Your task to perform on an android device: Go to CNN.com Image 0: 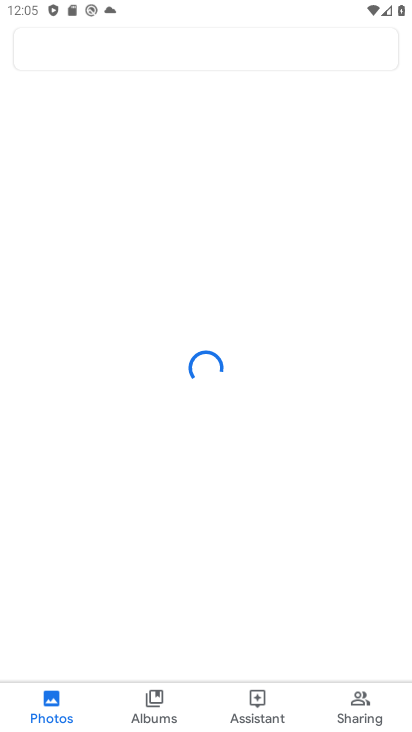
Step 0: press home button
Your task to perform on an android device: Go to CNN.com Image 1: 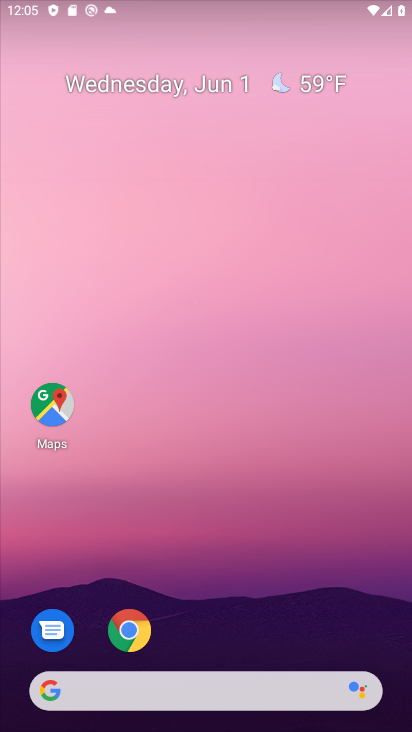
Step 1: drag from (229, 571) to (236, 228)
Your task to perform on an android device: Go to CNN.com Image 2: 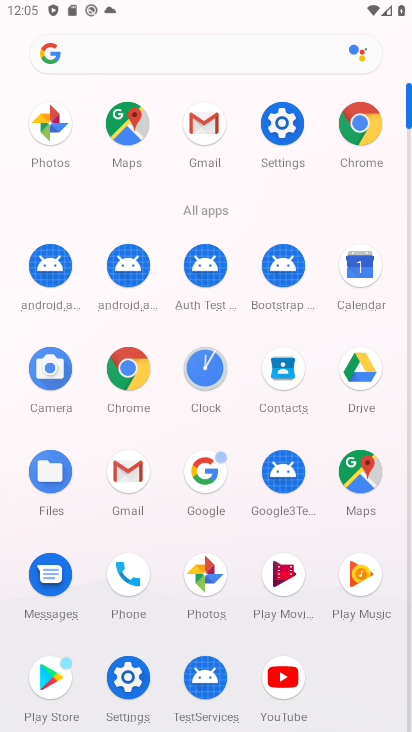
Step 2: click (138, 363)
Your task to perform on an android device: Go to CNN.com Image 3: 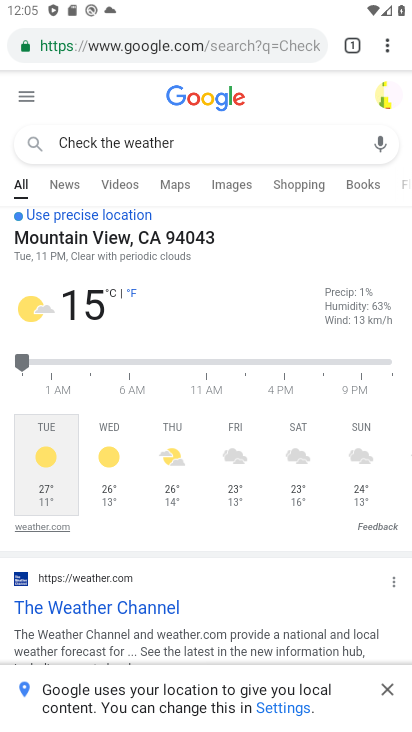
Step 3: click (394, 40)
Your task to perform on an android device: Go to CNN.com Image 4: 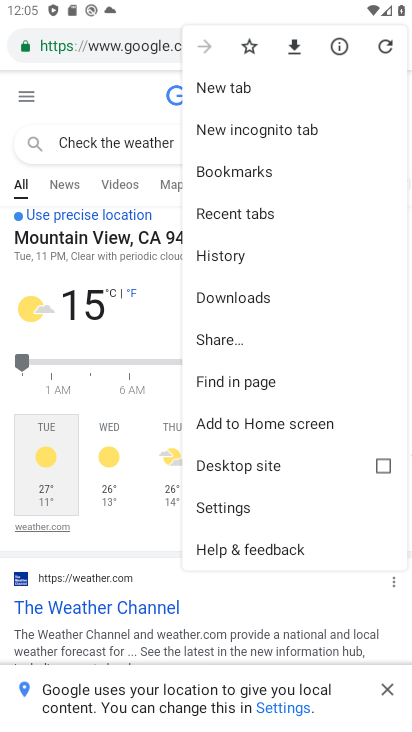
Step 4: click (222, 79)
Your task to perform on an android device: Go to CNN.com Image 5: 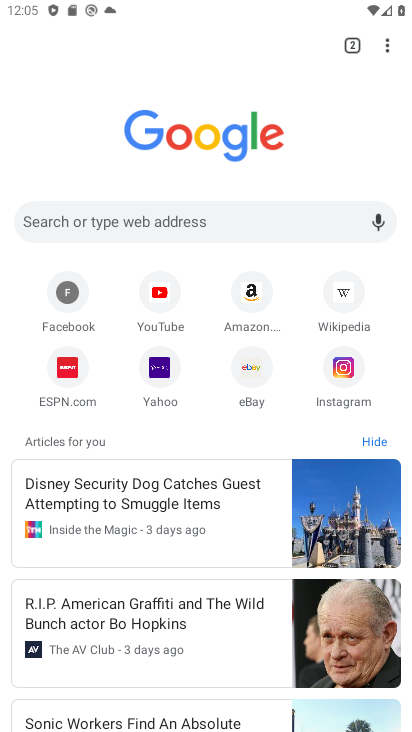
Step 5: click (254, 216)
Your task to perform on an android device: Go to CNN.com Image 6: 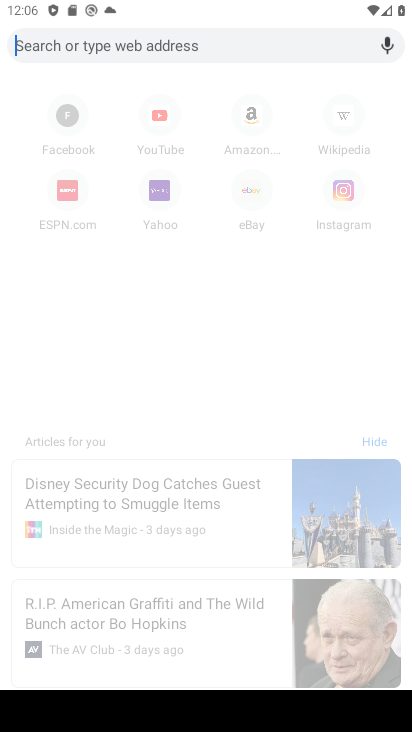
Step 6: type "CNN.com"
Your task to perform on an android device: Go to CNN.com Image 7: 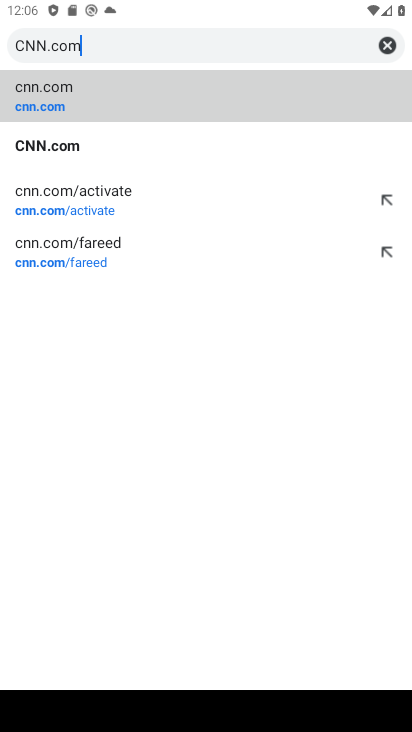
Step 7: click (137, 95)
Your task to perform on an android device: Go to CNN.com Image 8: 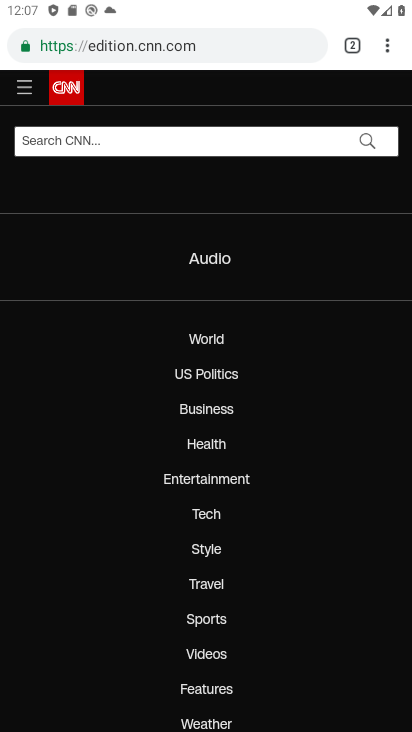
Step 8: task complete